Your task to perform on an android device: search for starred emails in the gmail app Image 0: 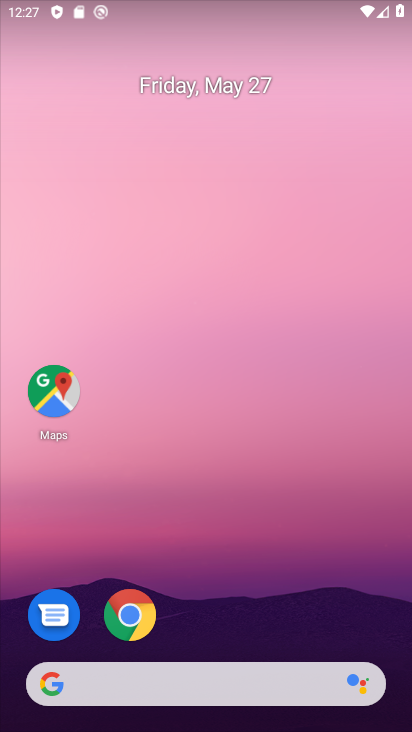
Step 0: press home button
Your task to perform on an android device: search for starred emails in the gmail app Image 1: 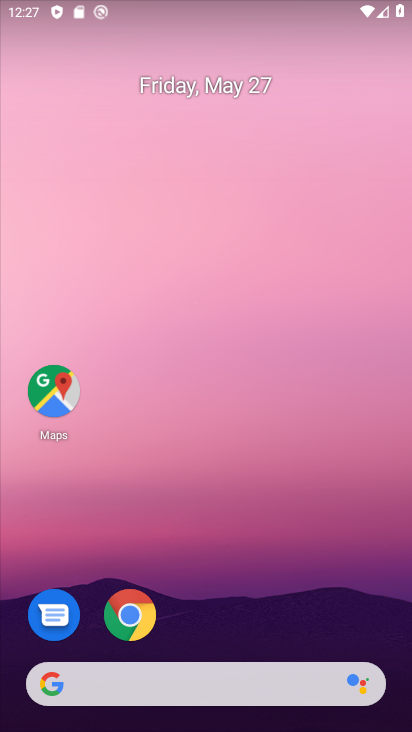
Step 1: drag from (237, 621) to (246, 112)
Your task to perform on an android device: search for starred emails in the gmail app Image 2: 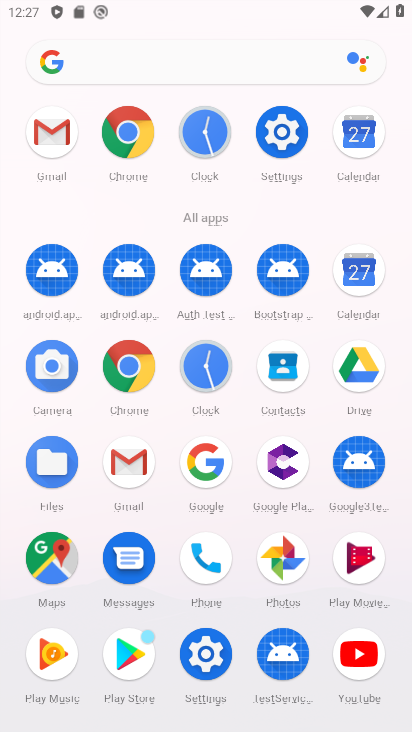
Step 2: click (54, 139)
Your task to perform on an android device: search for starred emails in the gmail app Image 3: 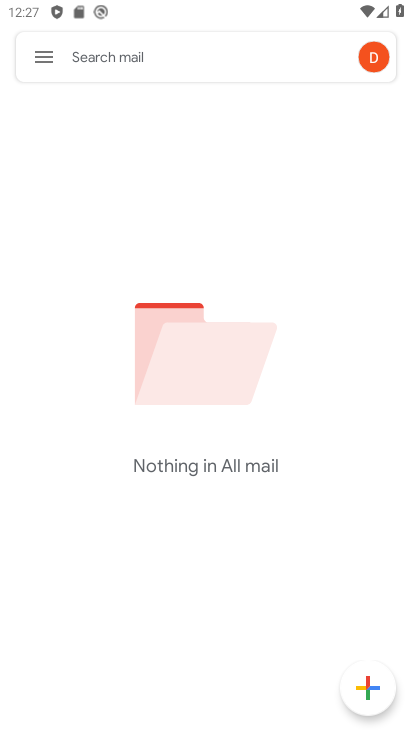
Step 3: click (44, 55)
Your task to perform on an android device: search for starred emails in the gmail app Image 4: 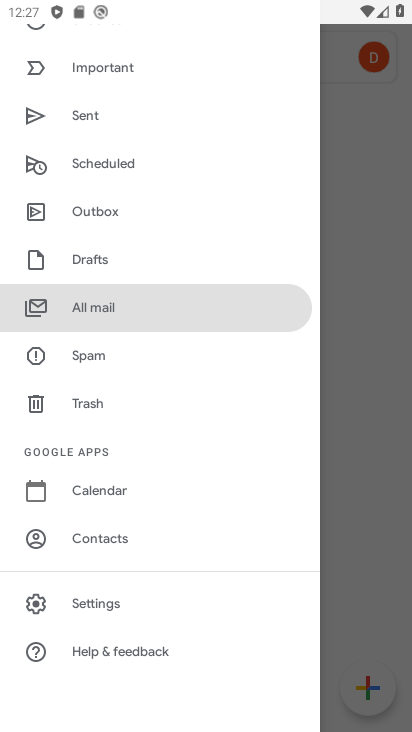
Step 4: drag from (184, 198) to (146, 592)
Your task to perform on an android device: search for starred emails in the gmail app Image 5: 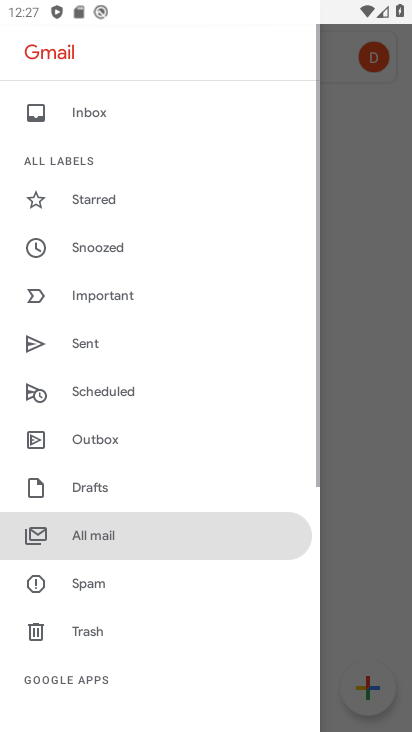
Step 5: click (96, 195)
Your task to perform on an android device: search for starred emails in the gmail app Image 6: 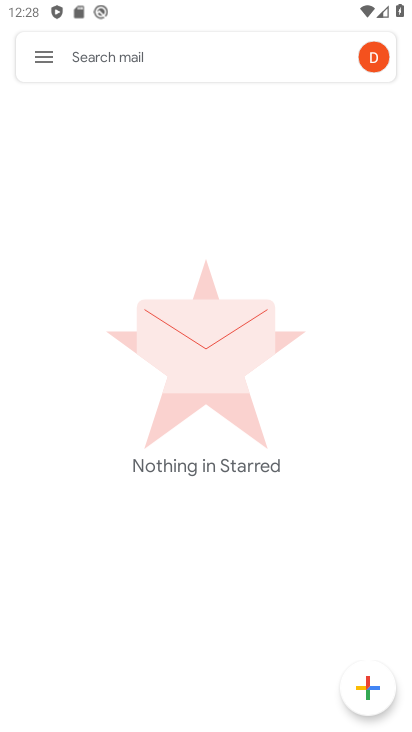
Step 6: task complete